Your task to perform on an android device: Open Amazon Image 0: 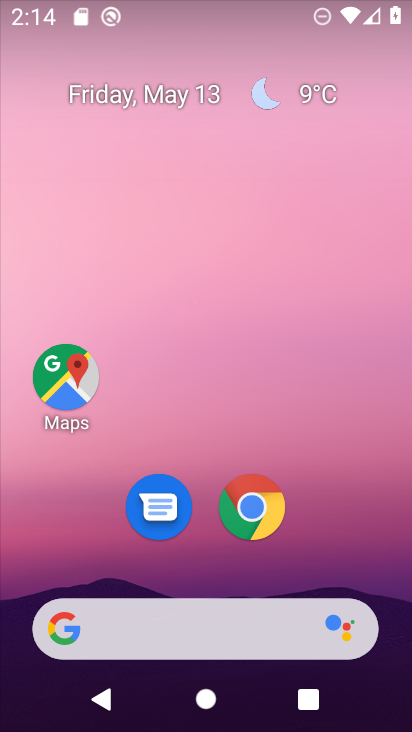
Step 0: drag from (366, 404) to (356, 32)
Your task to perform on an android device: Open Amazon Image 1: 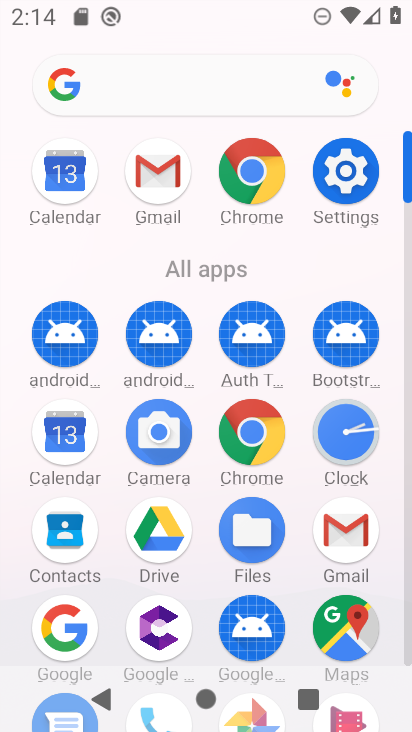
Step 1: click (267, 161)
Your task to perform on an android device: Open Amazon Image 2: 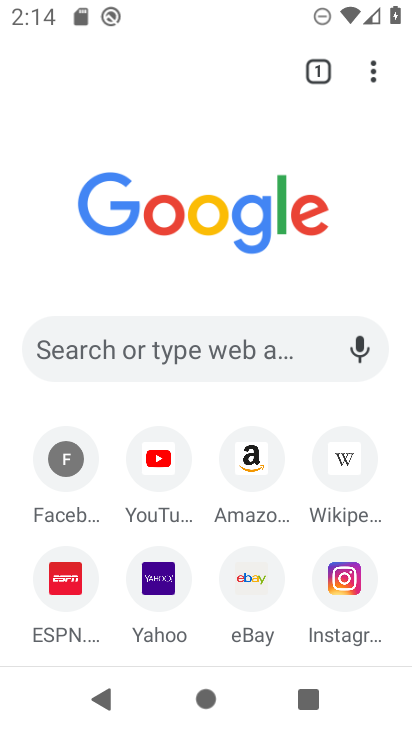
Step 2: click (256, 472)
Your task to perform on an android device: Open Amazon Image 3: 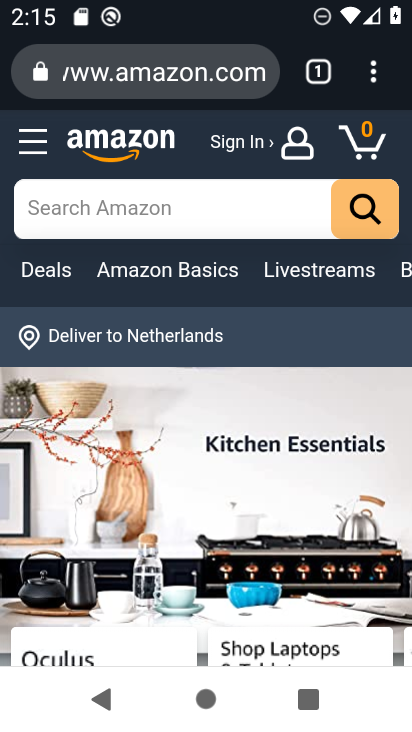
Step 3: task complete